Your task to perform on an android device: Open Maps and search for coffee Image 0: 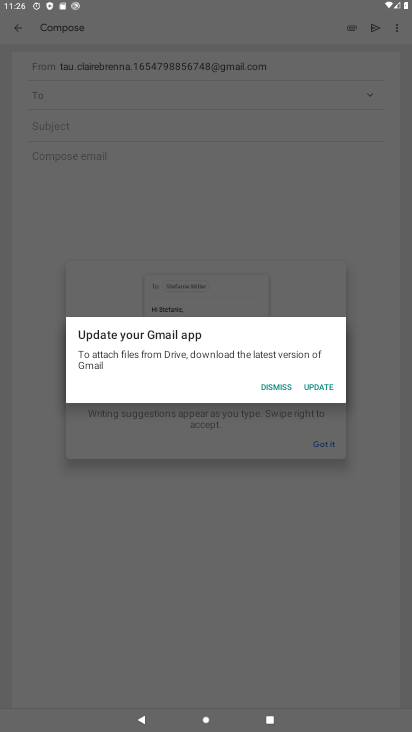
Step 0: click (292, 396)
Your task to perform on an android device: Open Maps and search for coffee Image 1: 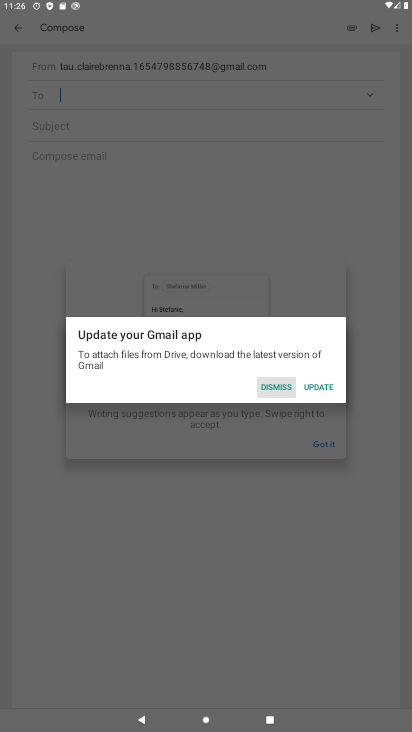
Step 1: click (295, 390)
Your task to perform on an android device: Open Maps and search for coffee Image 2: 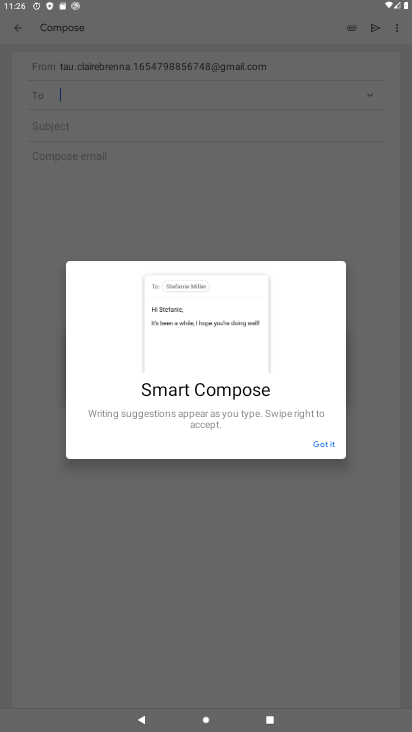
Step 2: click (296, 390)
Your task to perform on an android device: Open Maps and search for coffee Image 3: 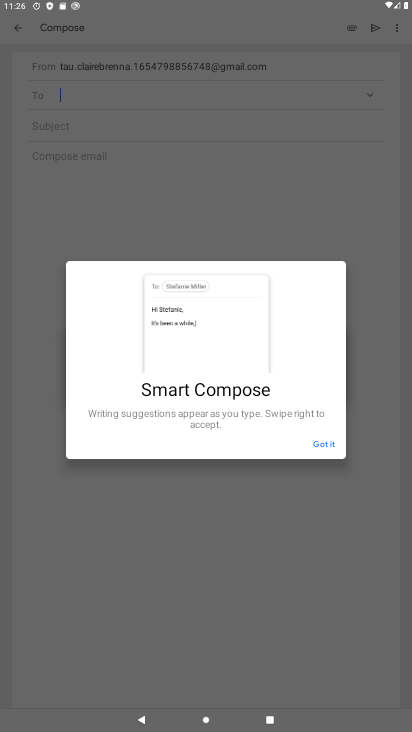
Step 3: click (311, 435)
Your task to perform on an android device: Open Maps and search for coffee Image 4: 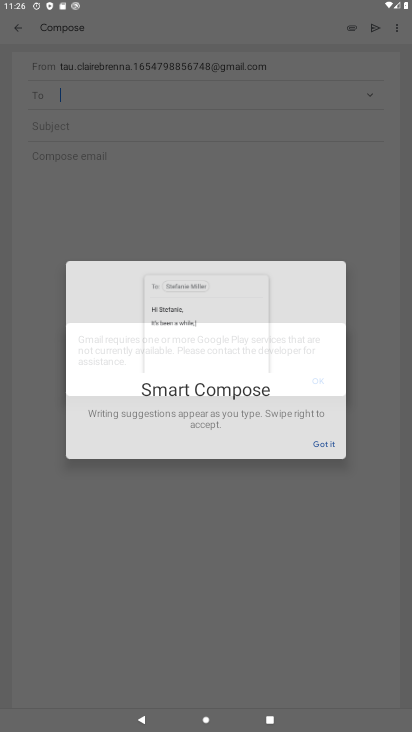
Step 4: click (313, 436)
Your task to perform on an android device: Open Maps and search for coffee Image 5: 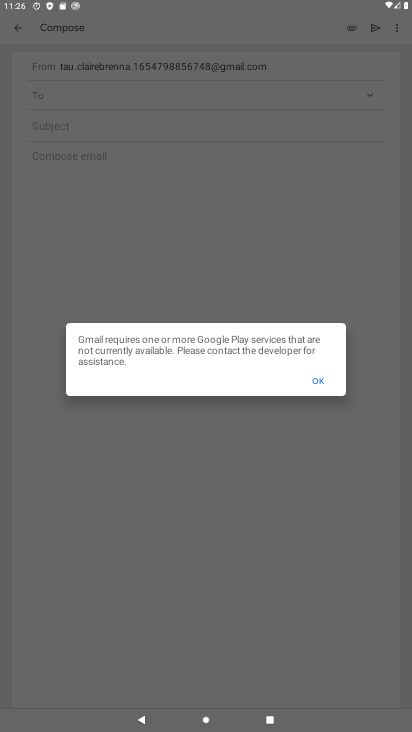
Step 5: click (313, 437)
Your task to perform on an android device: Open Maps and search for coffee Image 6: 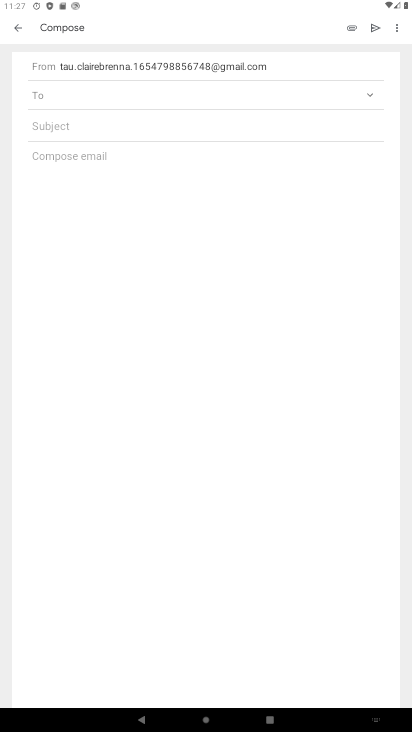
Step 6: press back button
Your task to perform on an android device: Open Maps and search for coffee Image 7: 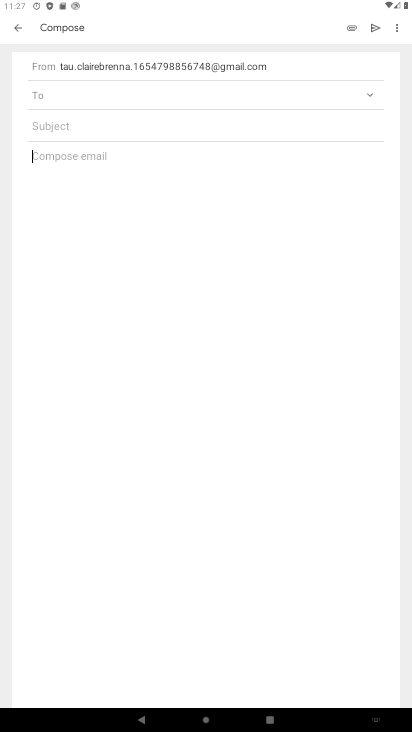
Step 7: press back button
Your task to perform on an android device: Open Maps and search for coffee Image 8: 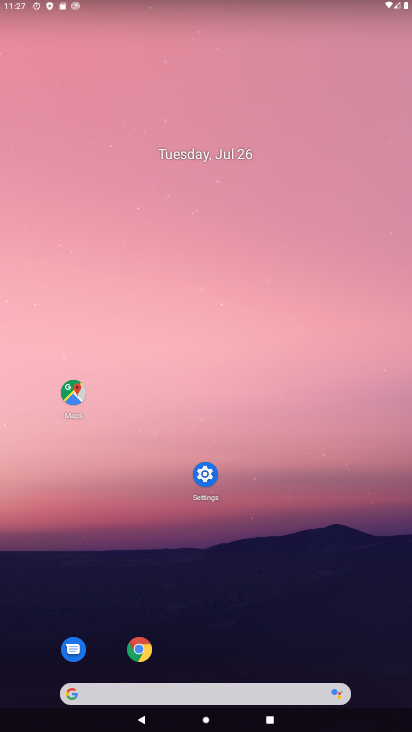
Step 8: drag from (199, 639) to (151, 184)
Your task to perform on an android device: Open Maps and search for coffee Image 9: 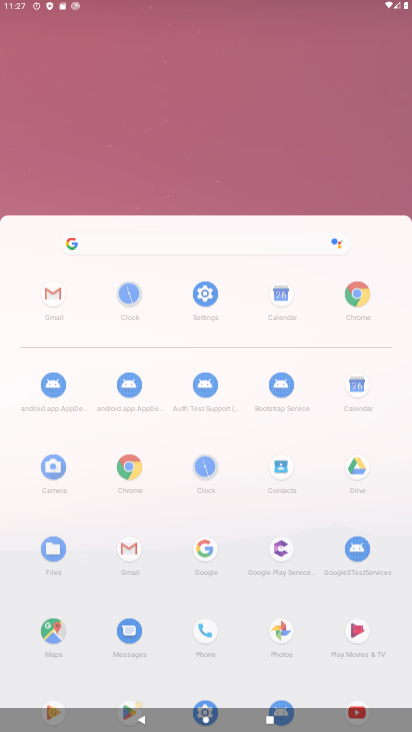
Step 9: drag from (203, 552) to (132, 139)
Your task to perform on an android device: Open Maps and search for coffee Image 10: 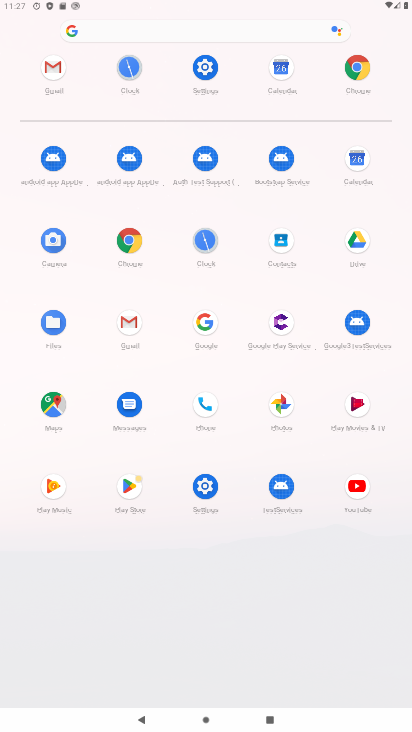
Step 10: drag from (196, 447) to (142, 91)
Your task to perform on an android device: Open Maps and search for coffee Image 11: 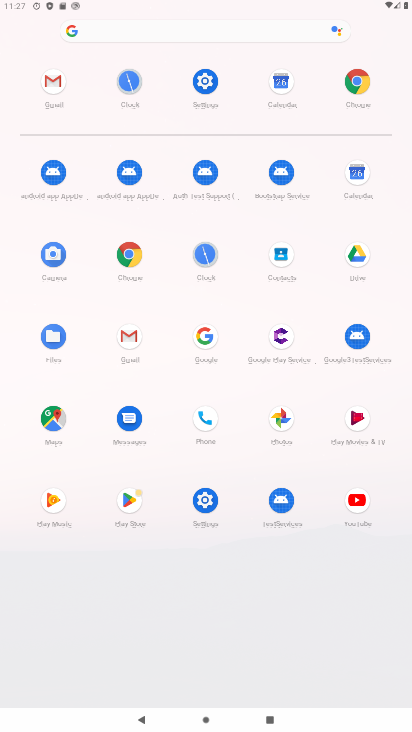
Step 11: click (47, 423)
Your task to perform on an android device: Open Maps and search for coffee Image 12: 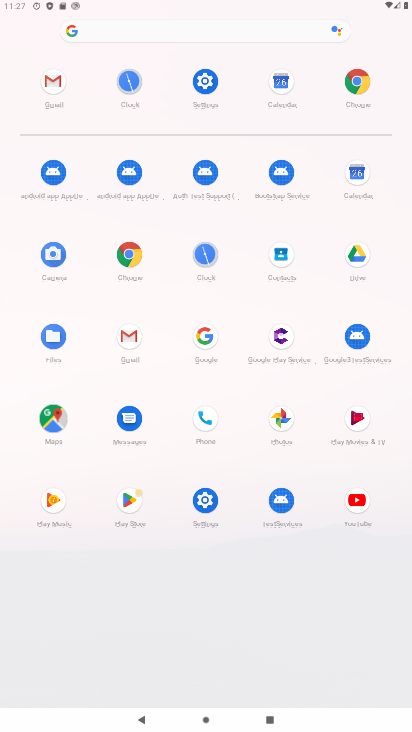
Step 12: click (59, 412)
Your task to perform on an android device: Open Maps and search for coffee Image 13: 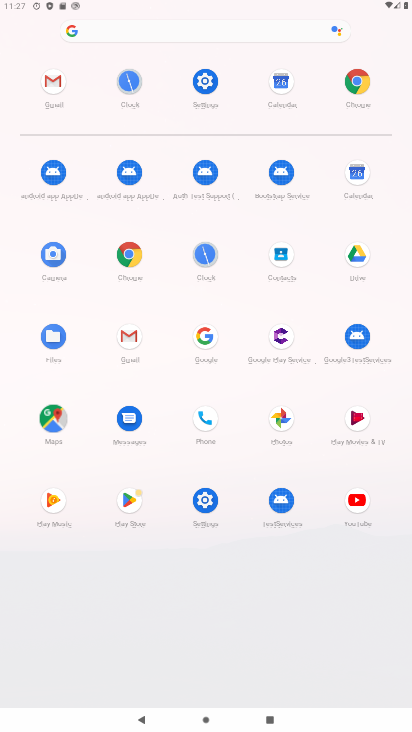
Step 13: click (60, 411)
Your task to perform on an android device: Open Maps and search for coffee Image 14: 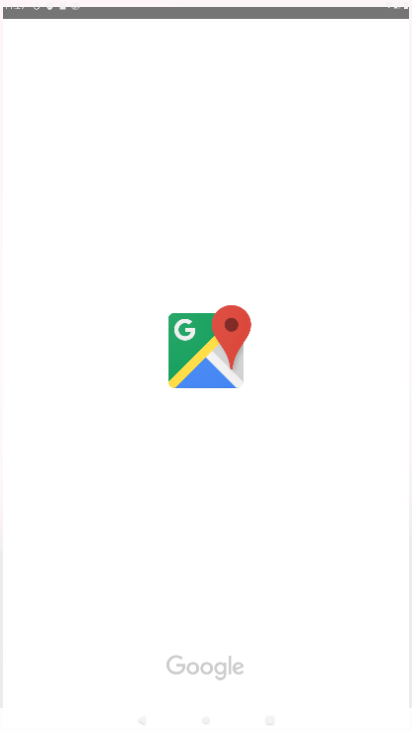
Step 14: click (63, 411)
Your task to perform on an android device: Open Maps and search for coffee Image 15: 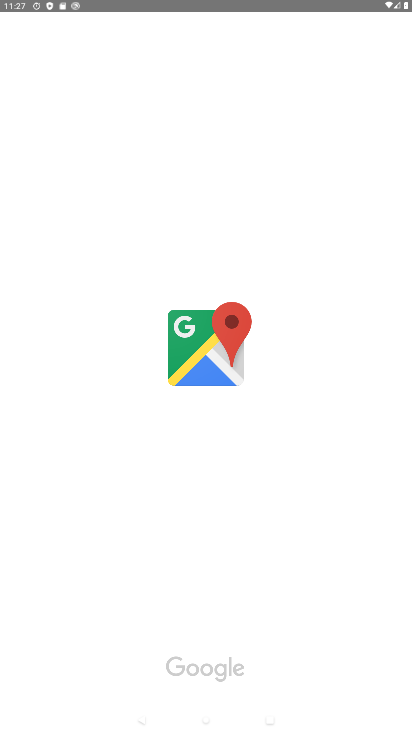
Step 15: click (65, 409)
Your task to perform on an android device: Open Maps and search for coffee Image 16: 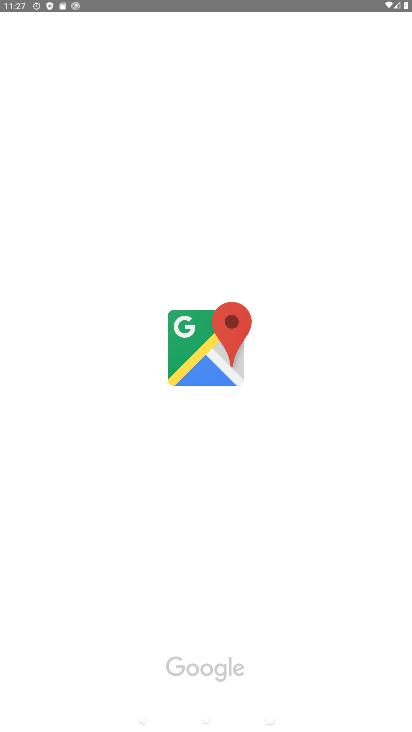
Step 16: click (65, 408)
Your task to perform on an android device: Open Maps and search for coffee Image 17: 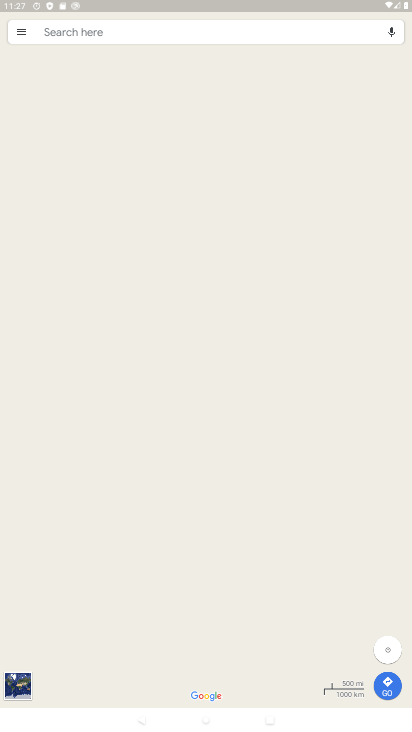
Step 17: click (128, 29)
Your task to perform on an android device: Open Maps and search for coffee Image 18: 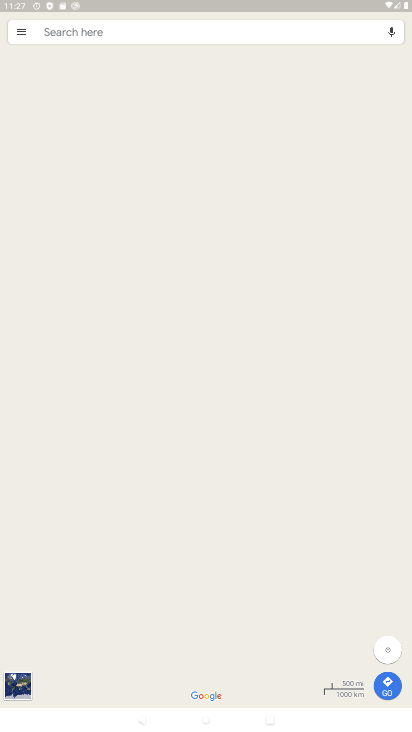
Step 18: click (130, 29)
Your task to perform on an android device: Open Maps and search for coffee Image 19: 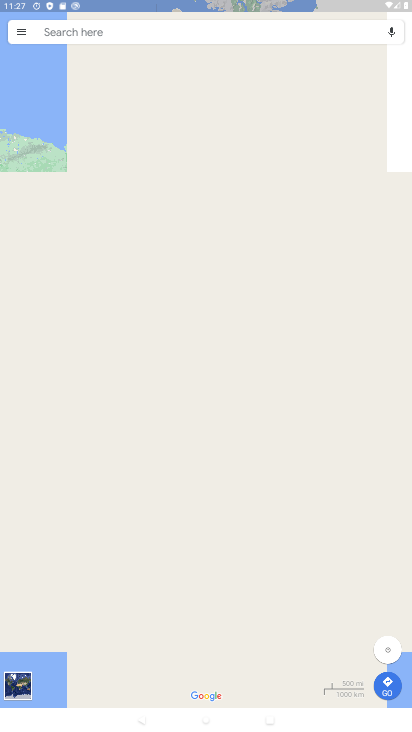
Step 19: click (131, 28)
Your task to perform on an android device: Open Maps and search for coffee Image 20: 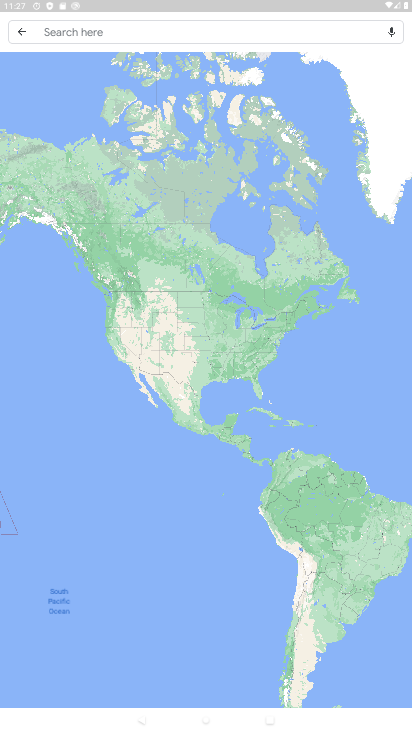
Step 20: click (134, 36)
Your task to perform on an android device: Open Maps and search for coffee Image 21: 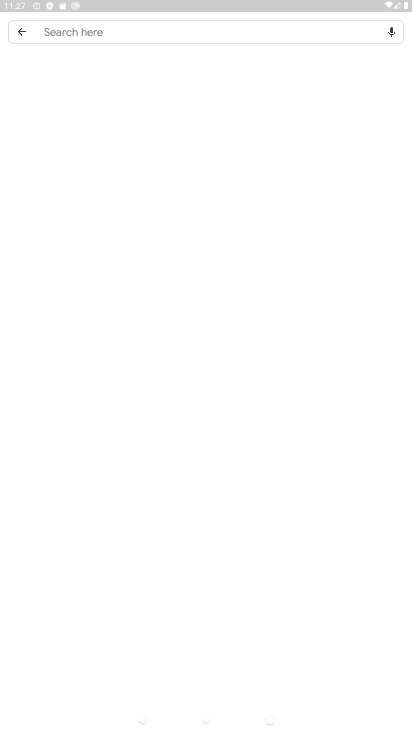
Step 21: click (135, 36)
Your task to perform on an android device: Open Maps and search for coffee Image 22: 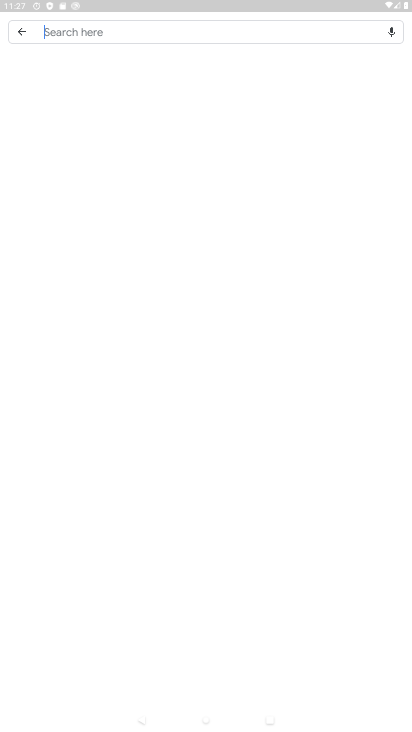
Step 22: click (135, 36)
Your task to perform on an android device: Open Maps and search for coffee Image 23: 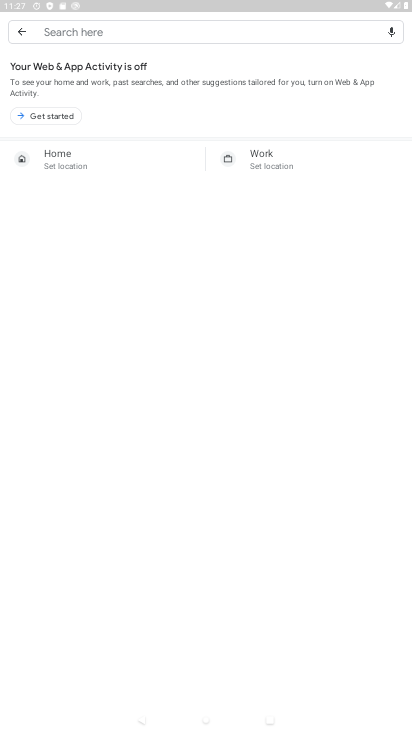
Step 23: click (135, 36)
Your task to perform on an android device: Open Maps and search for coffee Image 24: 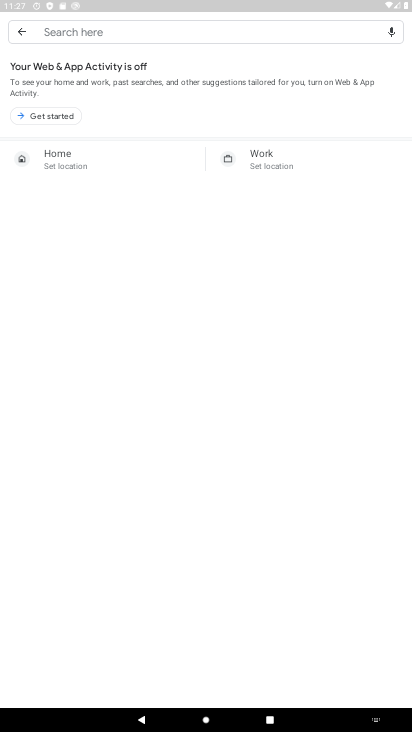
Step 24: click (135, 36)
Your task to perform on an android device: Open Maps and search for coffee Image 25: 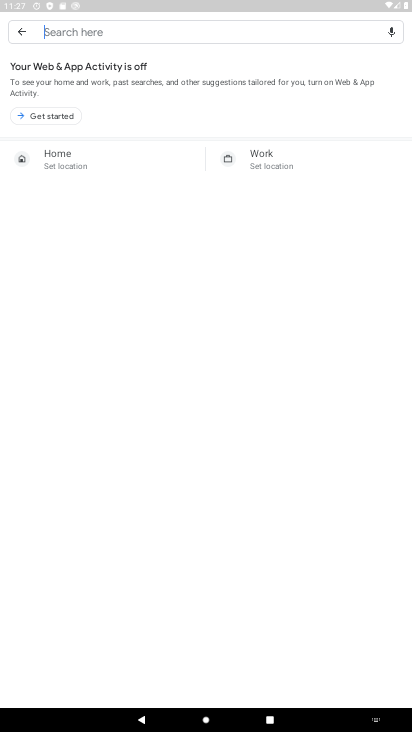
Step 25: type "coffee"
Your task to perform on an android device: Open Maps and search for coffee Image 26: 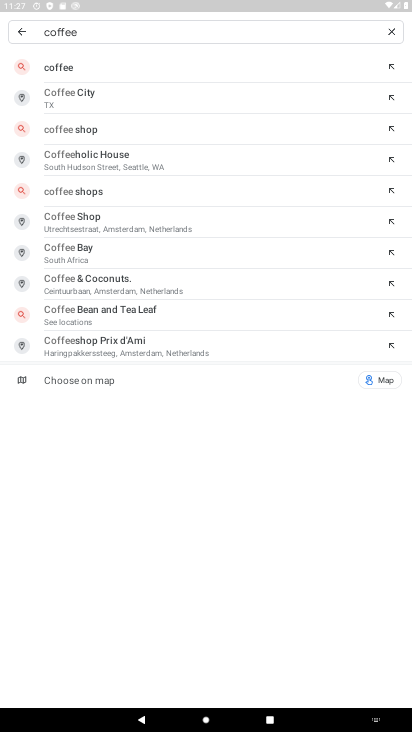
Step 26: click (70, 43)
Your task to perform on an android device: Open Maps and search for coffee Image 27: 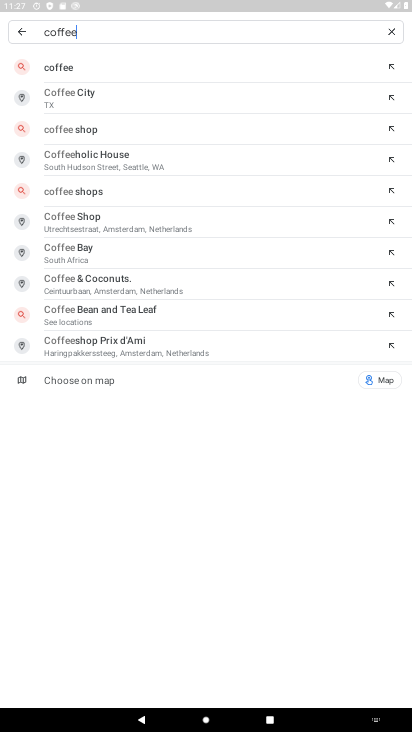
Step 27: click (73, 52)
Your task to perform on an android device: Open Maps and search for coffee Image 28: 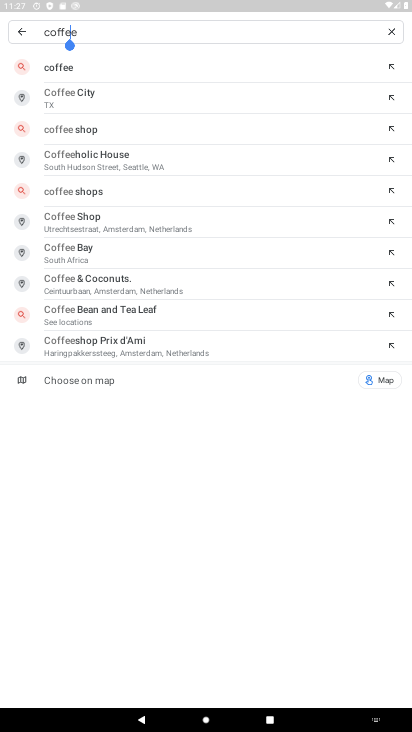
Step 28: click (75, 57)
Your task to perform on an android device: Open Maps and search for coffee Image 29: 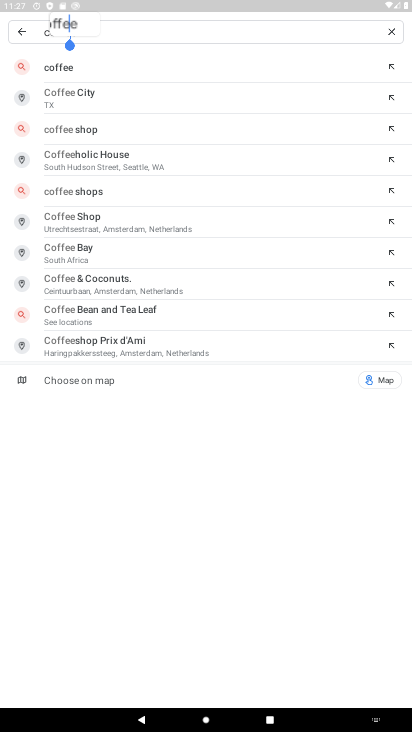
Step 29: click (78, 65)
Your task to perform on an android device: Open Maps and search for coffee Image 30: 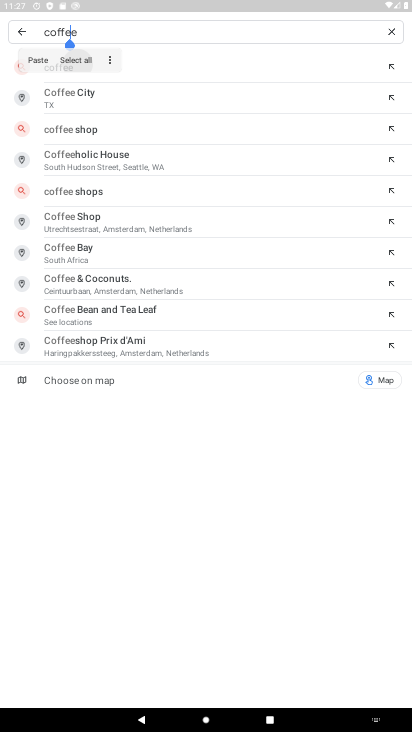
Step 30: click (77, 65)
Your task to perform on an android device: Open Maps and search for coffee Image 31: 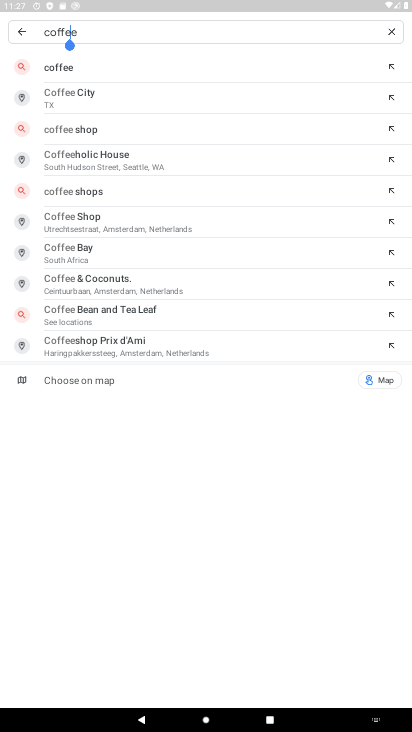
Step 31: click (76, 64)
Your task to perform on an android device: Open Maps and search for coffee Image 32: 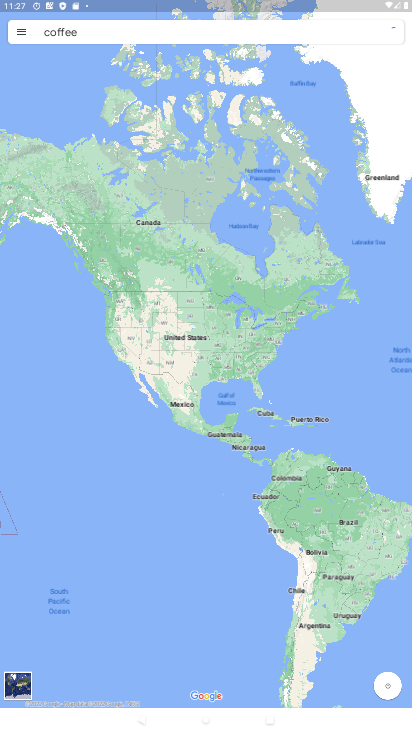
Step 32: task complete